Your task to perform on an android device: Open settings Image 0: 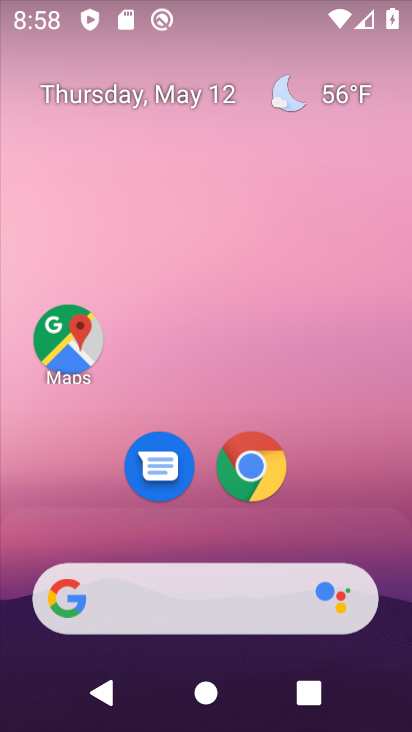
Step 0: drag from (331, 509) to (336, 76)
Your task to perform on an android device: Open settings Image 1: 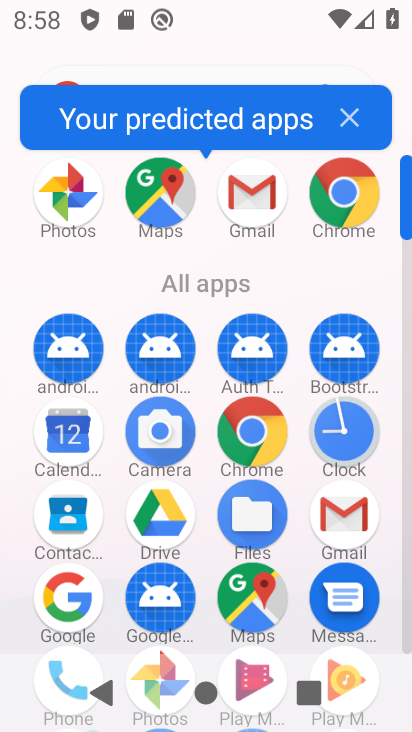
Step 1: drag from (207, 601) to (200, 249)
Your task to perform on an android device: Open settings Image 2: 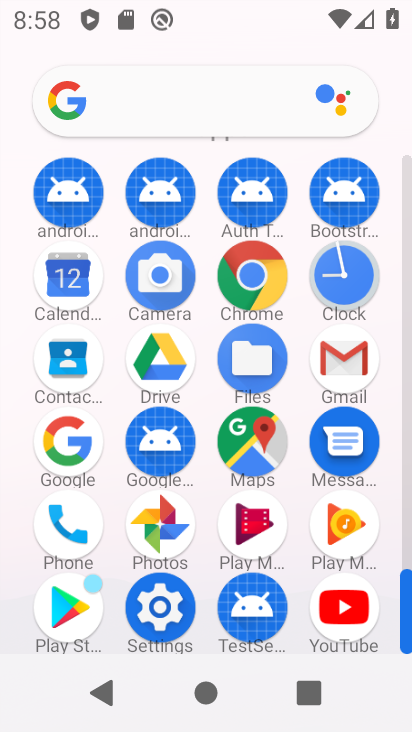
Step 2: click (178, 594)
Your task to perform on an android device: Open settings Image 3: 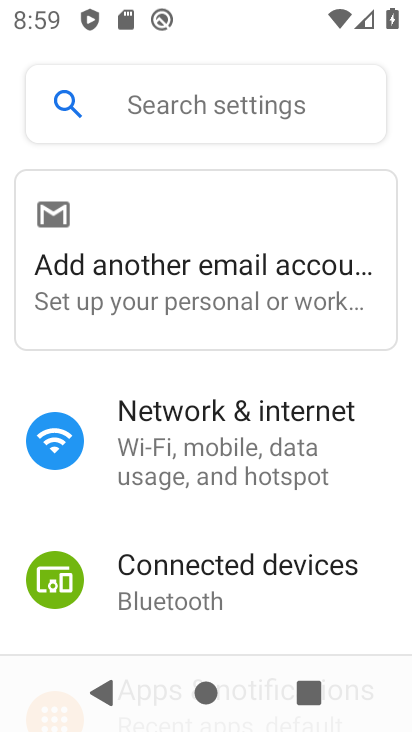
Step 3: task complete